Your task to perform on an android device: change keyboard looks Image 0: 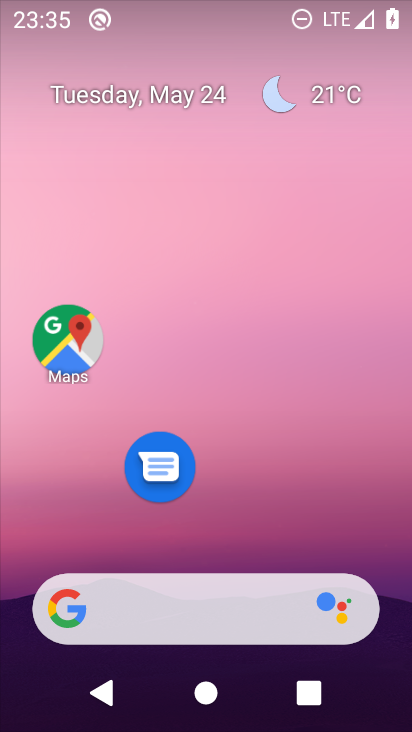
Step 0: drag from (173, 33) to (127, 4)
Your task to perform on an android device: change keyboard looks Image 1: 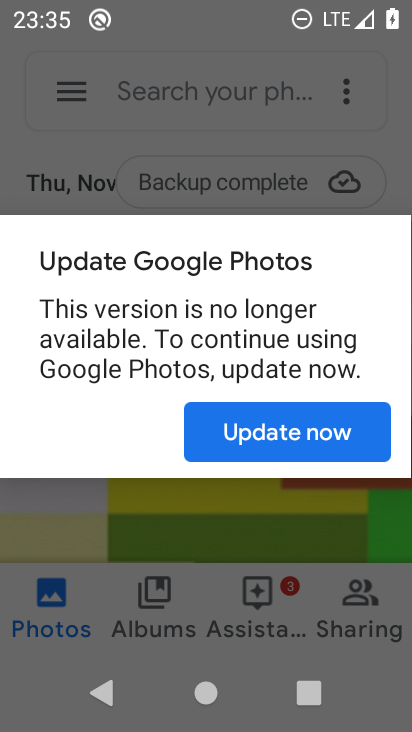
Step 1: press home button
Your task to perform on an android device: change keyboard looks Image 2: 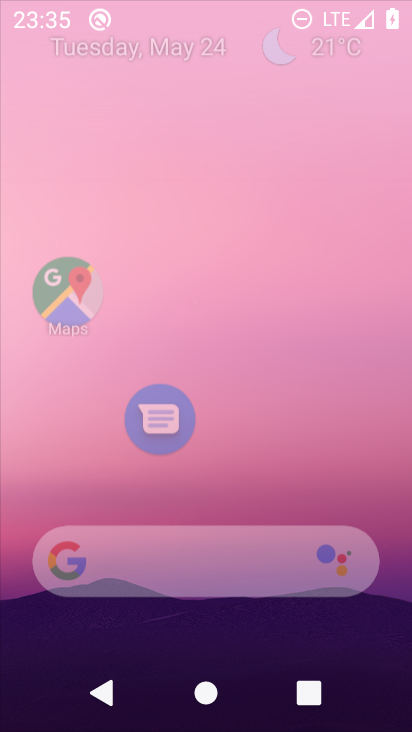
Step 2: drag from (205, 565) to (201, 102)
Your task to perform on an android device: change keyboard looks Image 3: 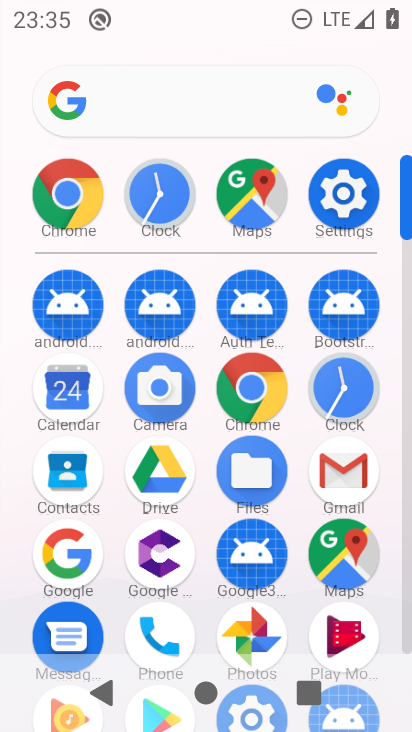
Step 3: click (345, 187)
Your task to perform on an android device: change keyboard looks Image 4: 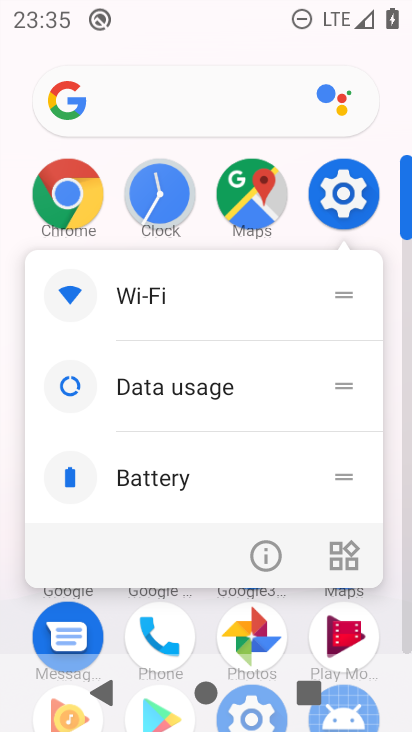
Step 4: click (268, 555)
Your task to perform on an android device: change keyboard looks Image 5: 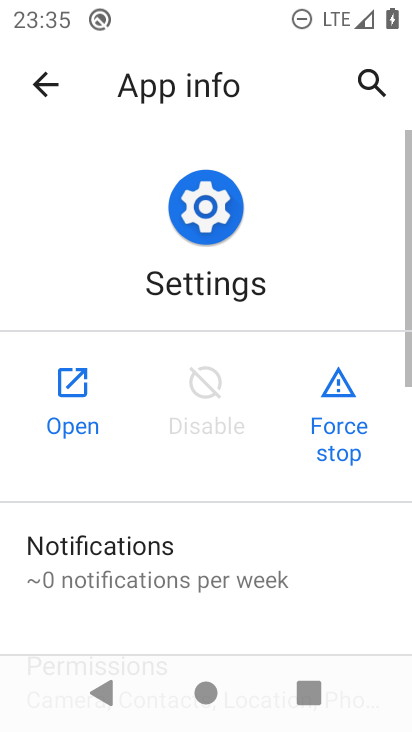
Step 5: click (67, 423)
Your task to perform on an android device: change keyboard looks Image 6: 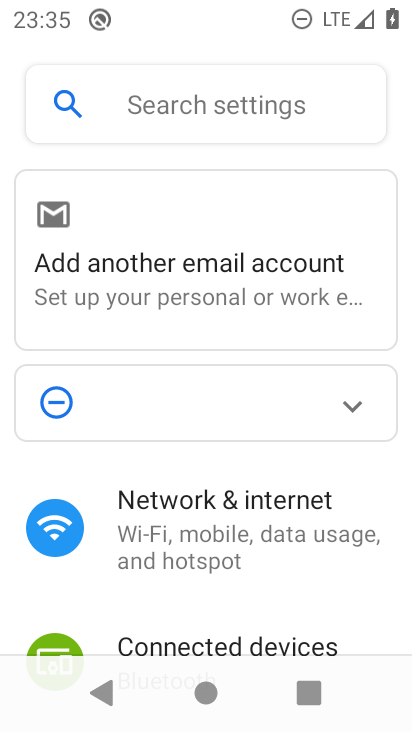
Step 6: drag from (241, 535) to (239, 178)
Your task to perform on an android device: change keyboard looks Image 7: 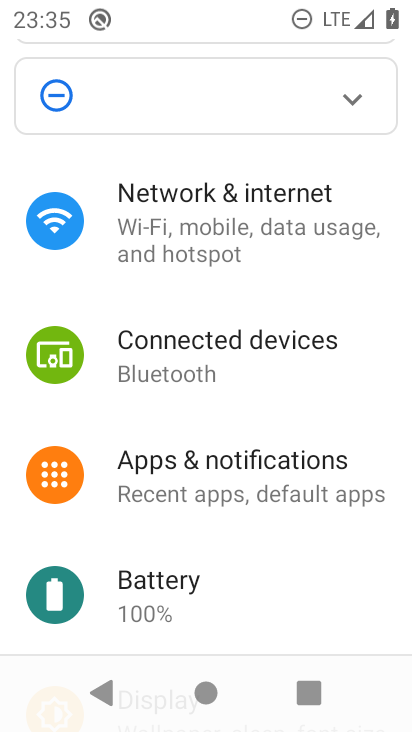
Step 7: drag from (206, 535) to (224, 250)
Your task to perform on an android device: change keyboard looks Image 8: 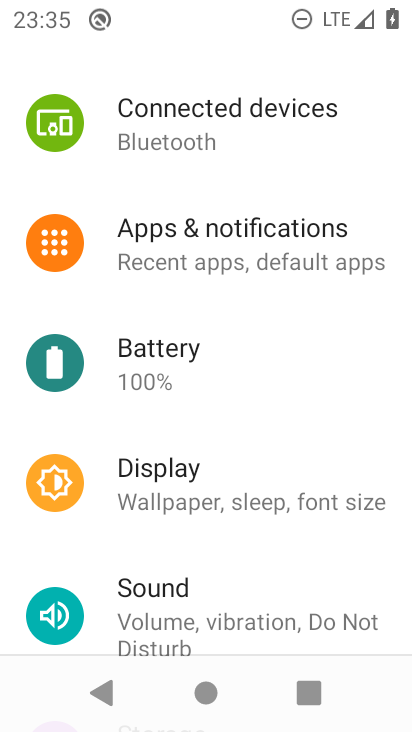
Step 8: drag from (238, 646) to (226, 350)
Your task to perform on an android device: change keyboard looks Image 9: 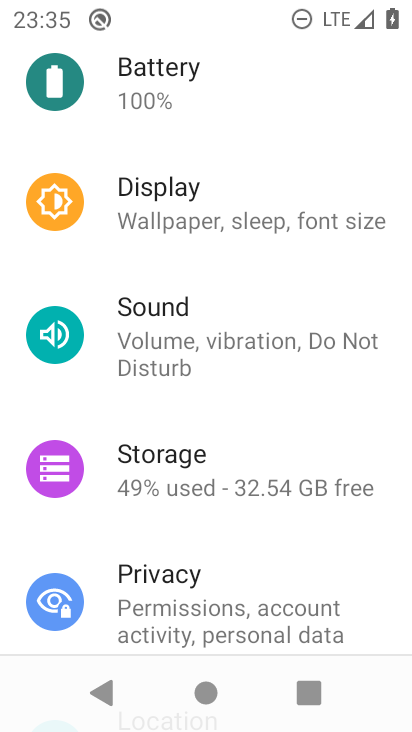
Step 9: drag from (234, 537) to (263, 325)
Your task to perform on an android device: change keyboard looks Image 10: 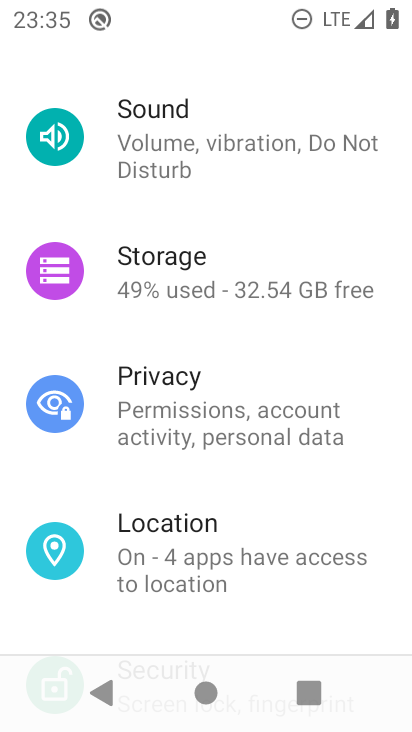
Step 10: drag from (235, 683) to (265, 93)
Your task to perform on an android device: change keyboard looks Image 11: 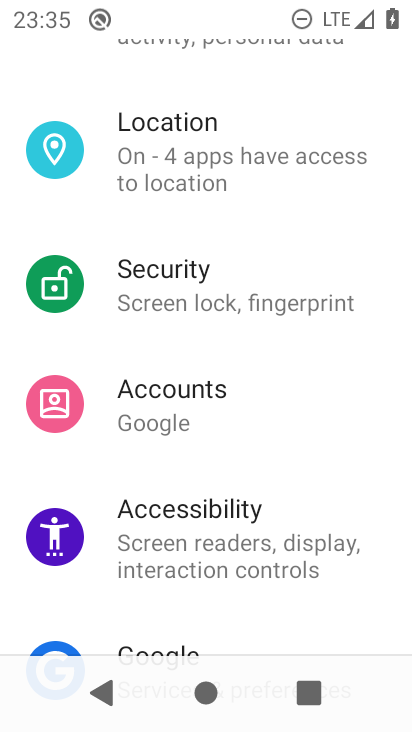
Step 11: drag from (219, 586) to (219, 101)
Your task to perform on an android device: change keyboard looks Image 12: 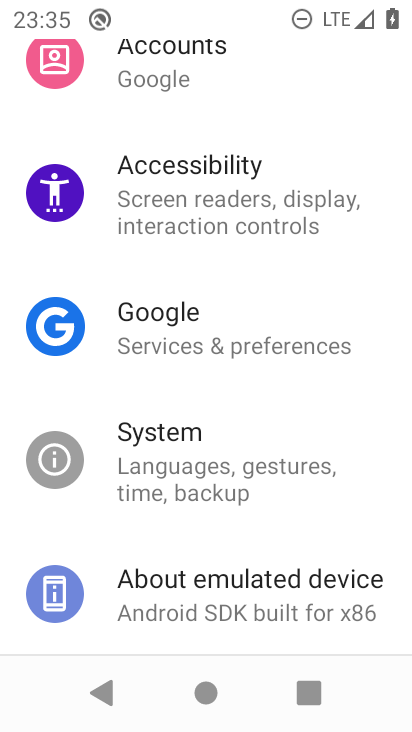
Step 12: click (184, 440)
Your task to perform on an android device: change keyboard looks Image 13: 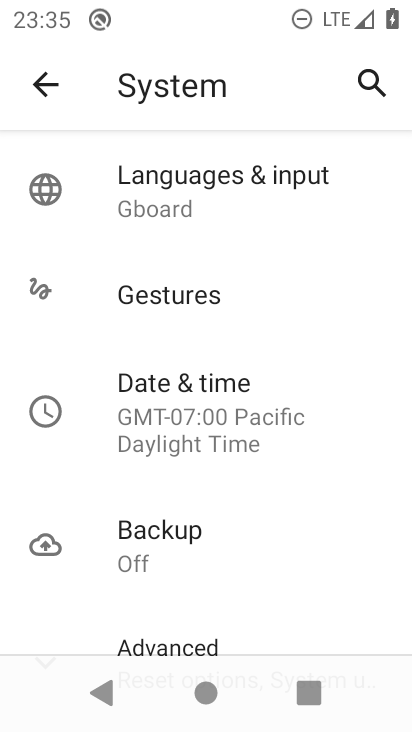
Step 13: click (188, 189)
Your task to perform on an android device: change keyboard looks Image 14: 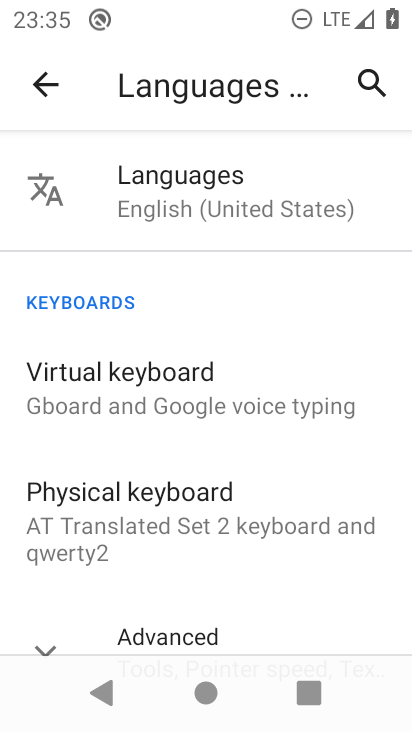
Step 14: click (137, 370)
Your task to perform on an android device: change keyboard looks Image 15: 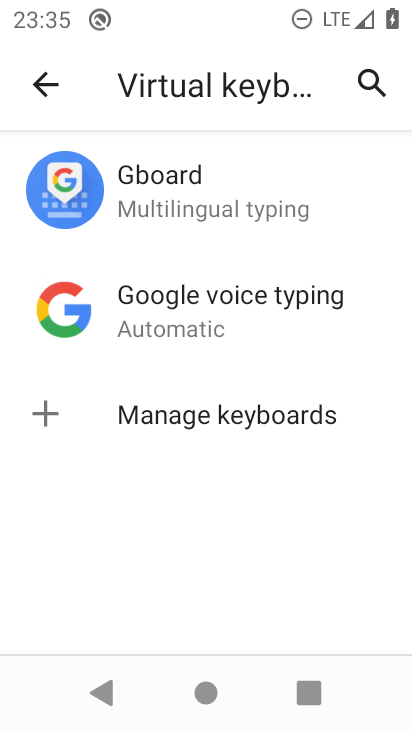
Step 15: click (249, 210)
Your task to perform on an android device: change keyboard looks Image 16: 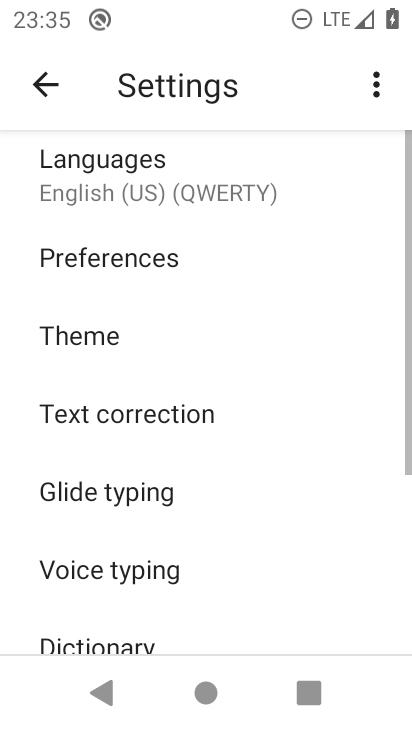
Step 16: drag from (265, 548) to (263, 344)
Your task to perform on an android device: change keyboard looks Image 17: 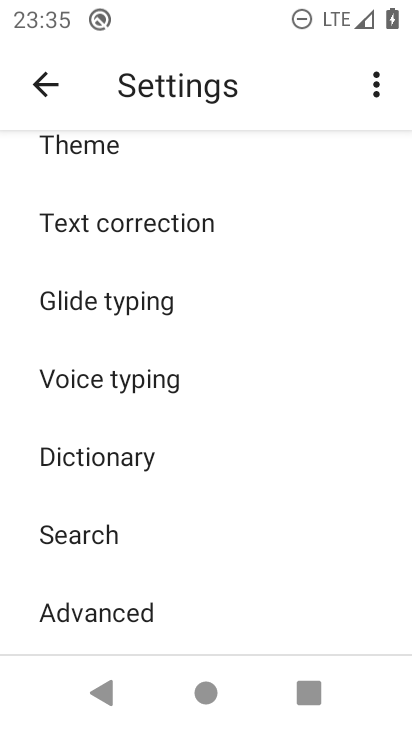
Step 17: drag from (156, 234) to (272, 567)
Your task to perform on an android device: change keyboard looks Image 18: 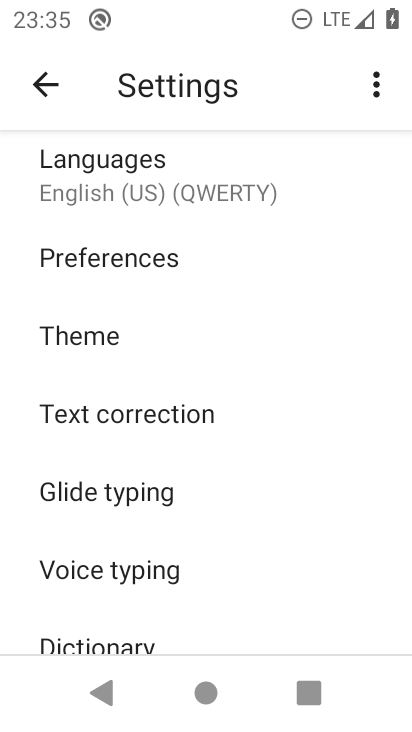
Step 18: click (126, 324)
Your task to perform on an android device: change keyboard looks Image 19: 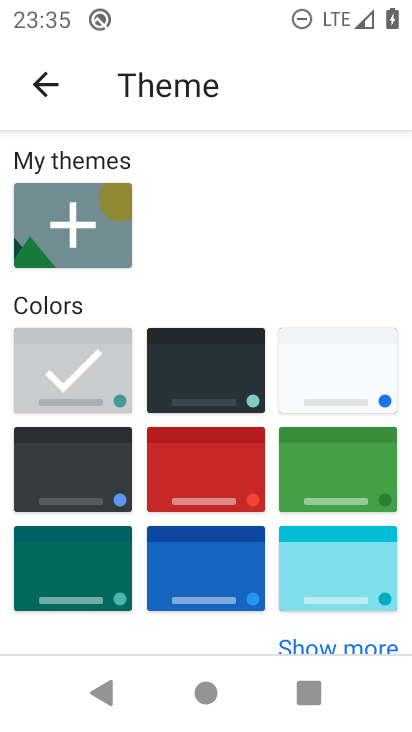
Step 19: click (81, 494)
Your task to perform on an android device: change keyboard looks Image 20: 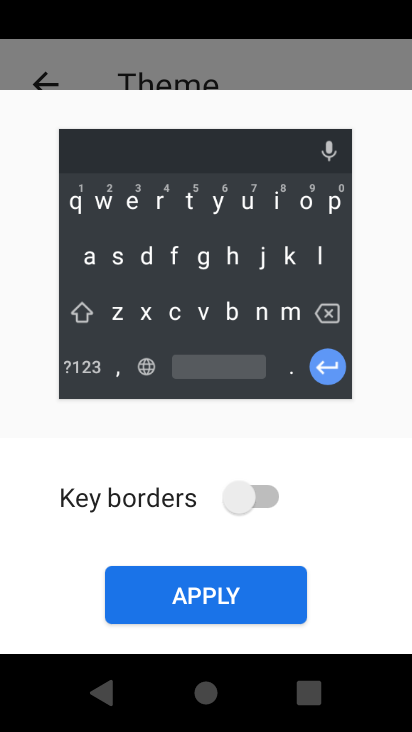
Step 20: click (227, 589)
Your task to perform on an android device: change keyboard looks Image 21: 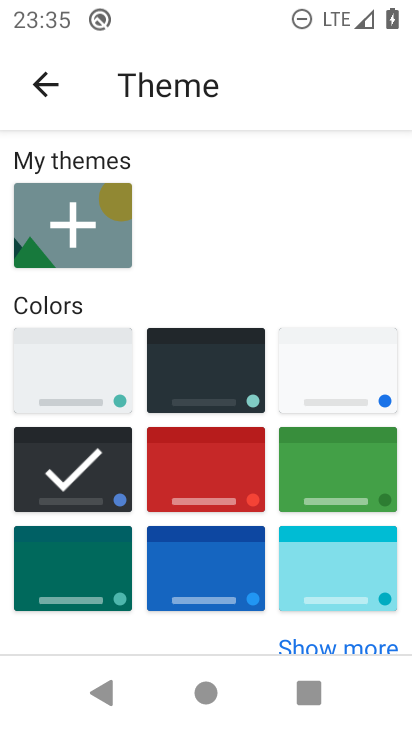
Step 21: task complete